Your task to perform on an android device: What's the weather today? Image 0: 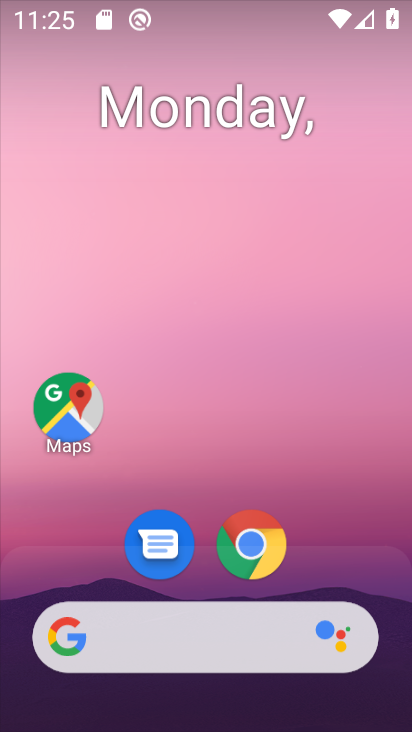
Step 0: drag from (65, 271) to (190, 315)
Your task to perform on an android device: What's the weather today? Image 1: 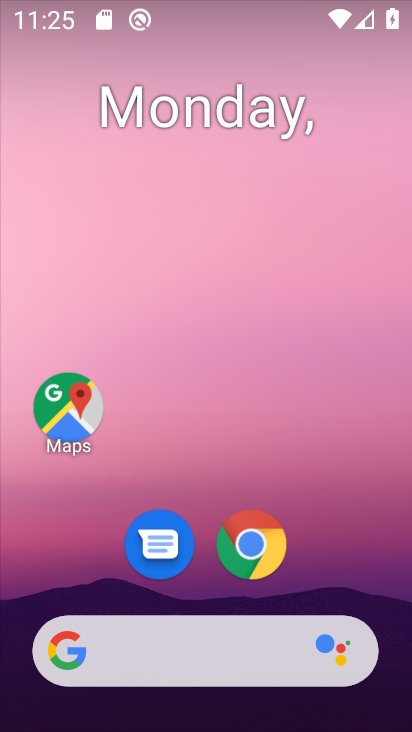
Step 1: drag from (6, 184) to (70, 235)
Your task to perform on an android device: What's the weather today? Image 2: 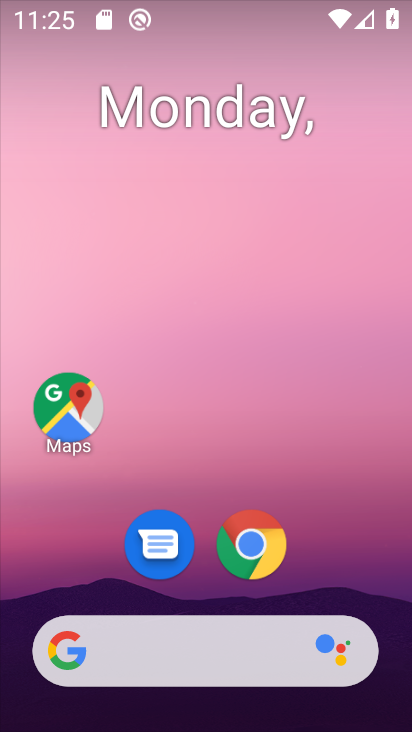
Step 2: drag from (54, 206) to (371, 256)
Your task to perform on an android device: What's the weather today? Image 3: 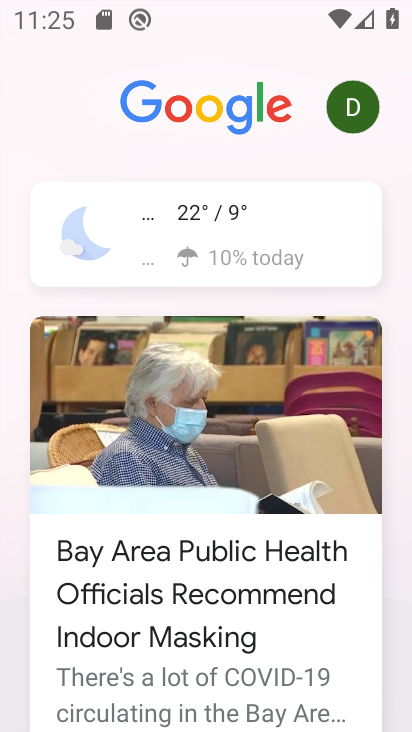
Step 3: drag from (272, 566) to (258, 420)
Your task to perform on an android device: What's the weather today? Image 4: 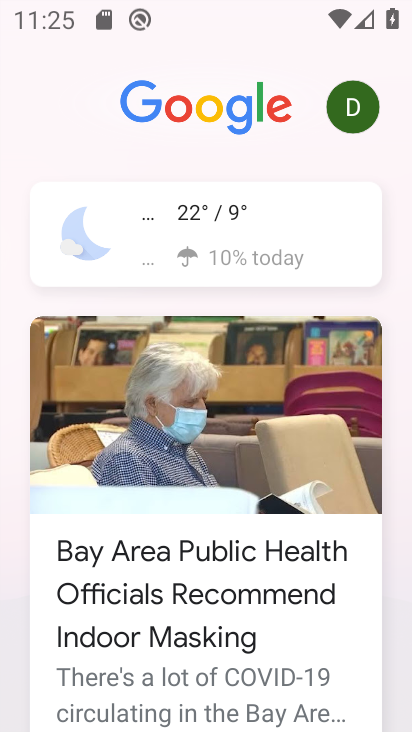
Step 4: click (281, 332)
Your task to perform on an android device: What's the weather today? Image 5: 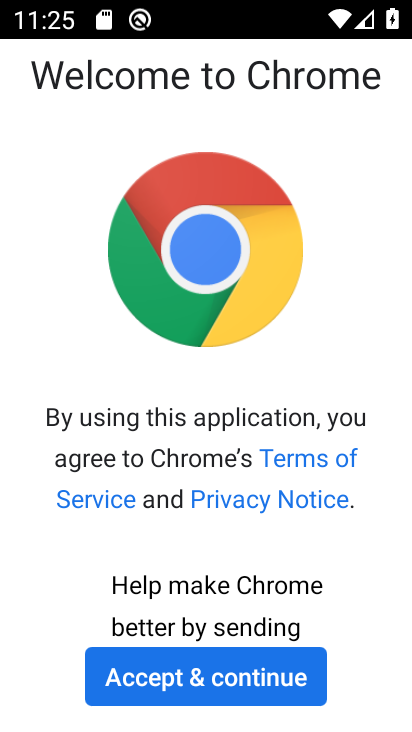
Step 5: click (183, 678)
Your task to perform on an android device: What's the weather today? Image 6: 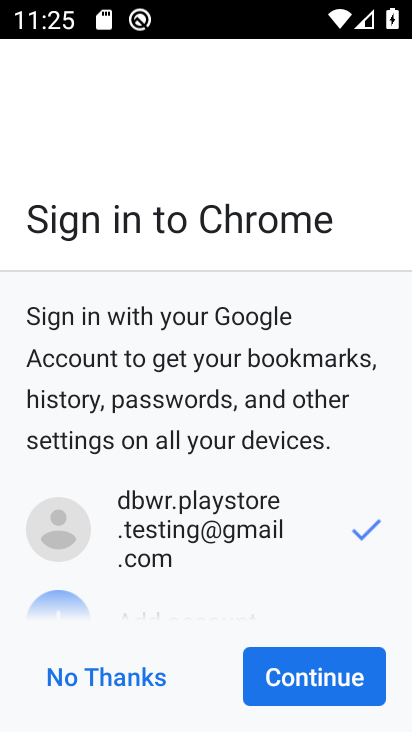
Step 6: click (346, 646)
Your task to perform on an android device: What's the weather today? Image 7: 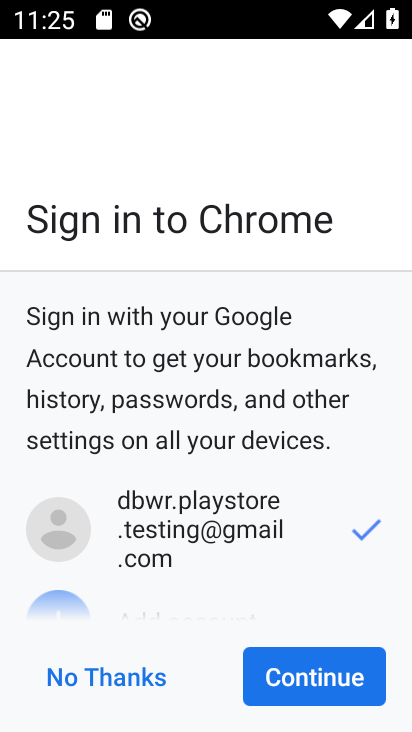
Step 7: click (343, 672)
Your task to perform on an android device: What's the weather today? Image 8: 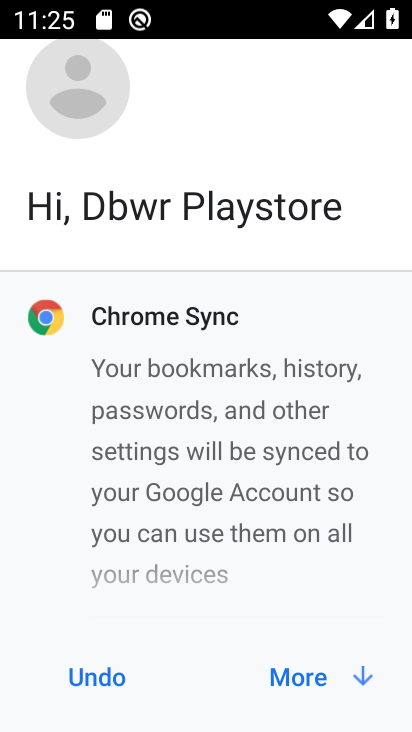
Step 8: click (318, 671)
Your task to perform on an android device: What's the weather today? Image 9: 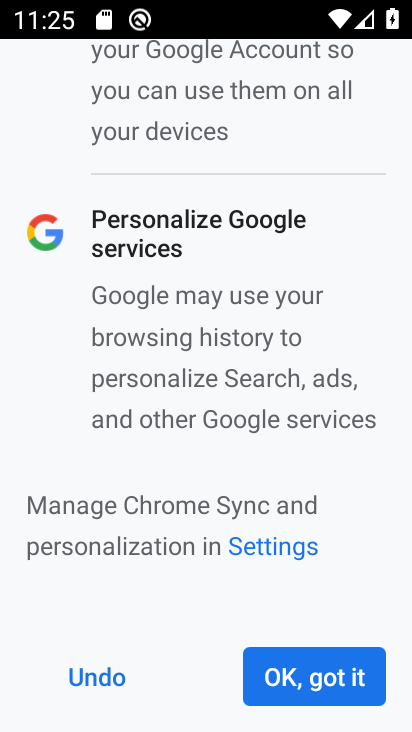
Step 9: click (318, 668)
Your task to perform on an android device: What's the weather today? Image 10: 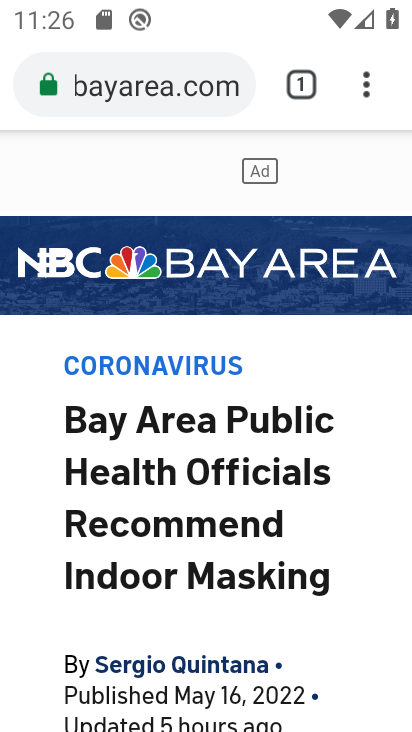
Step 10: press back button
Your task to perform on an android device: What's the weather today? Image 11: 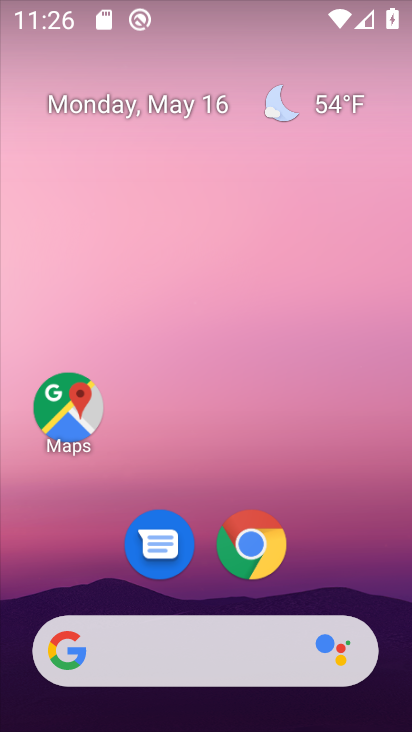
Step 11: click (363, 95)
Your task to perform on an android device: What's the weather today? Image 12: 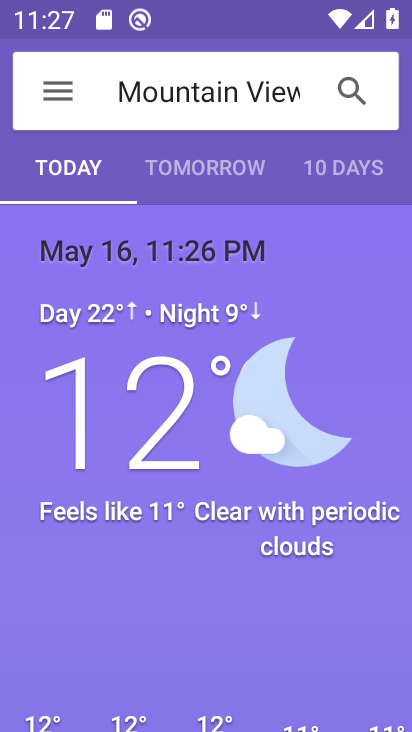
Step 12: task complete